Your task to perform on an android device: Go to Google Image 0: 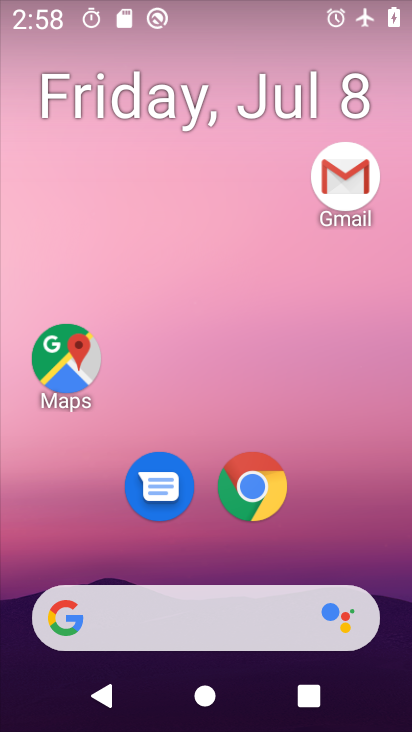
Step 0: drag from (336, 525) to (336, 154)
Your task to perform on an android device: Go to Google Image 1: 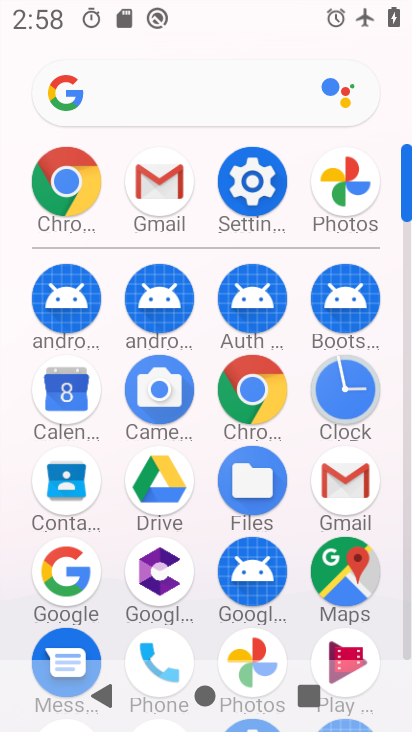
Step 1: click (86, 571)
Your task to perform on an android device: Go to Google Image 2: 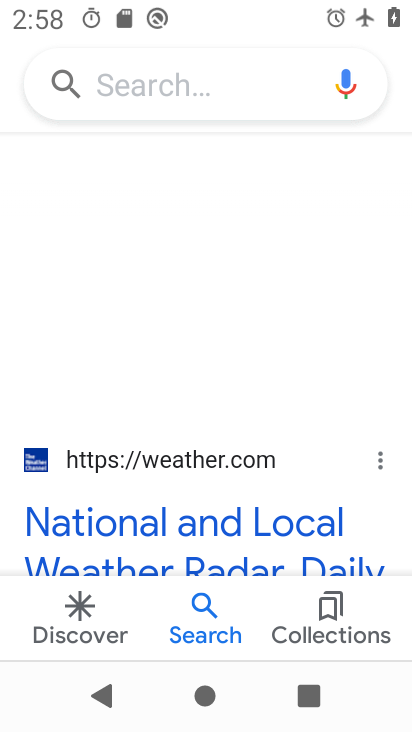
Step 2: task complete